Your task to perform on an android device: turn off notifications settings in the gmail app Image 0: 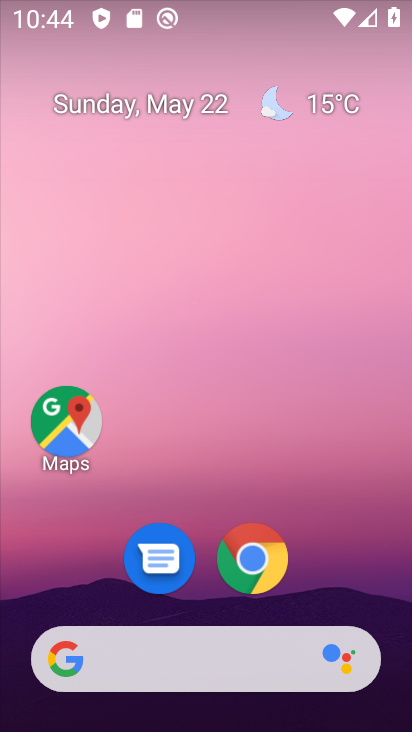
Step 0: drag from (368, 621) to (391, 7)
Your task to perform on an android device: turn off notifications settings in the gmail app Image 1: 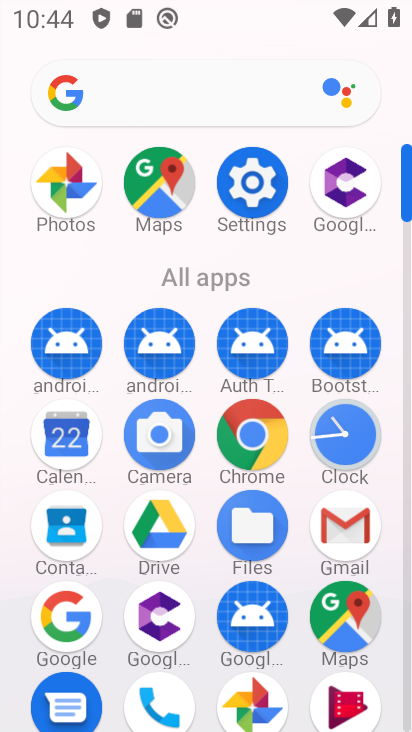
Step 1: click (338, 531)
Your task to perform on an android device: turn off notifications settings in the gmail app Image 2: 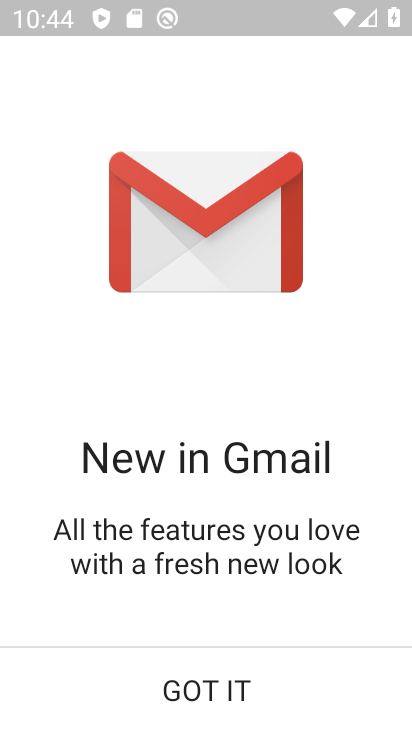
Step 2: click (185, 693)
Your task to perform on an android device: turn off notifications settings in the gmail app Image 3: 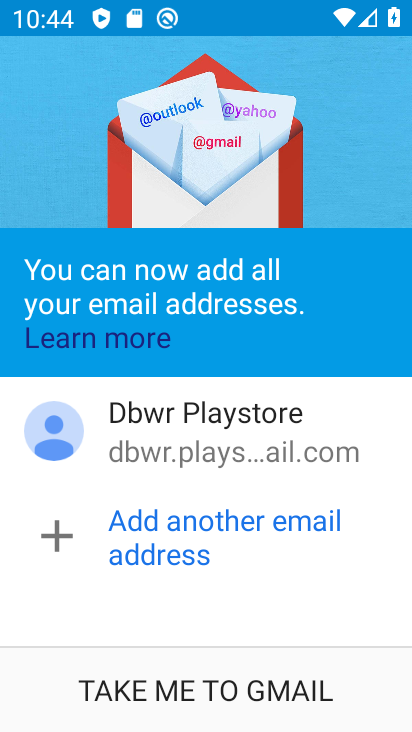
Step 3: click (185, 693)
Your task to perform on an android device: turn off notifications settings in the gmail app Image 4: 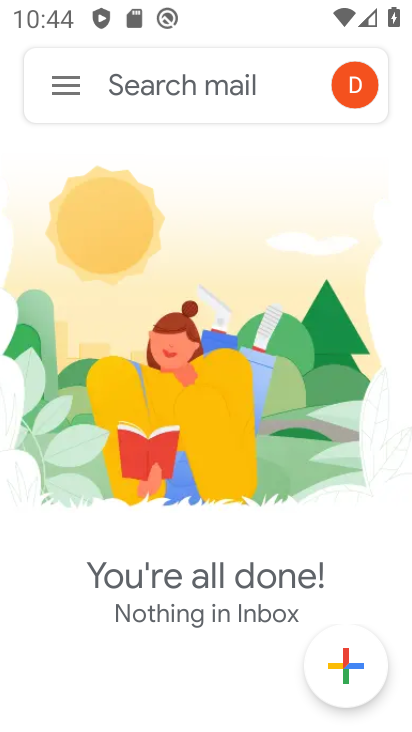
Step 4: click (61, 72)
Your task to perform on an android device: turn off notifications settings in the gmail app Image 5: 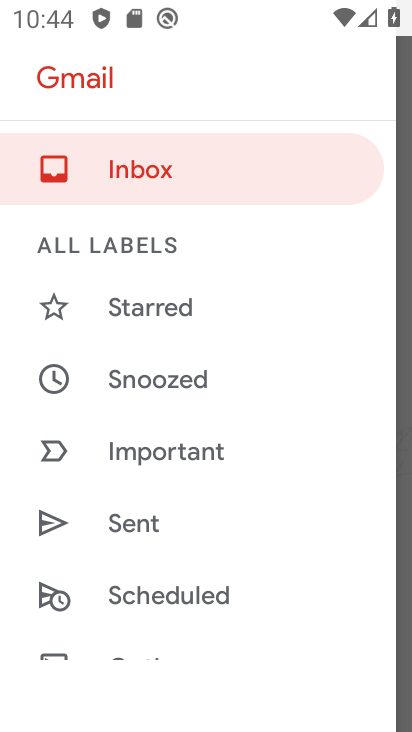
Step 5: drag from (196, 580) to (199, 161)
Your task to perform on an android device: turn off notifications settings in the gmail app Image 6: 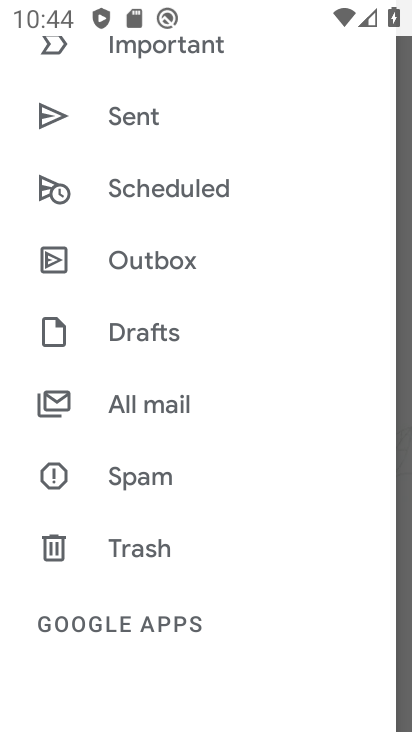
Step 6: drag from (187, 525) to (183, 156)
Your task to perform on an android device: turn off notifications settings in the gmail app Image 7: 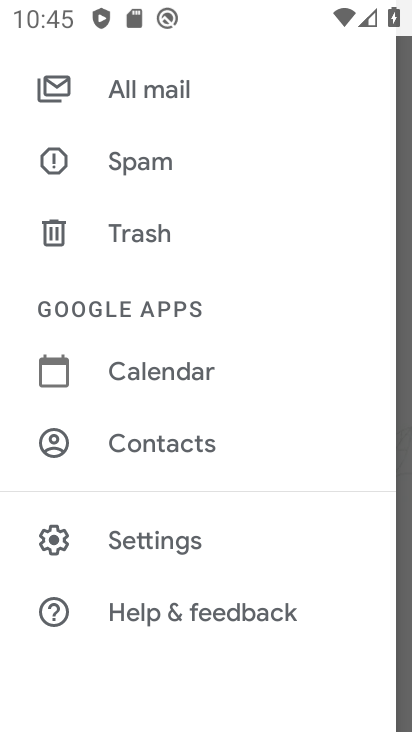
Step 7: click (144, 539)
Your task to perform on an android device: turn off notifications settings in the gmail app Image 8: 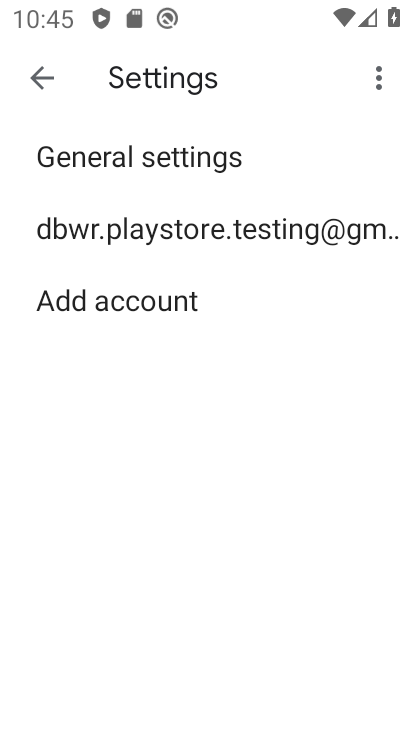
Step 8: click (134, 159)
Your task to perform on an android device: turn off notifications settings in the gmail app Image 9: 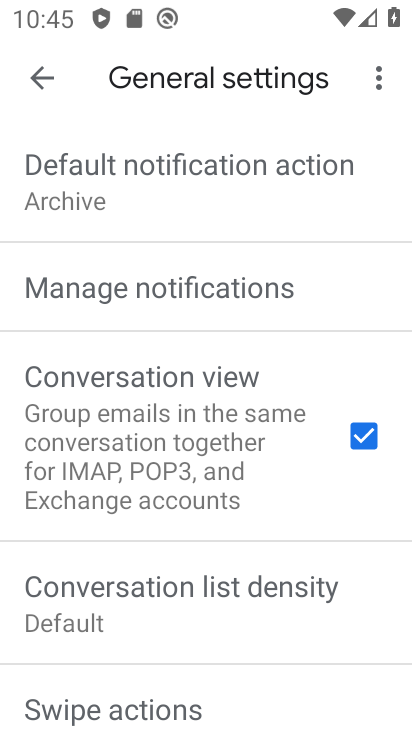
Step 9: click (148, 291)
Your task to perform on an android device: turn off notifications settings in the gmail app Image 10: 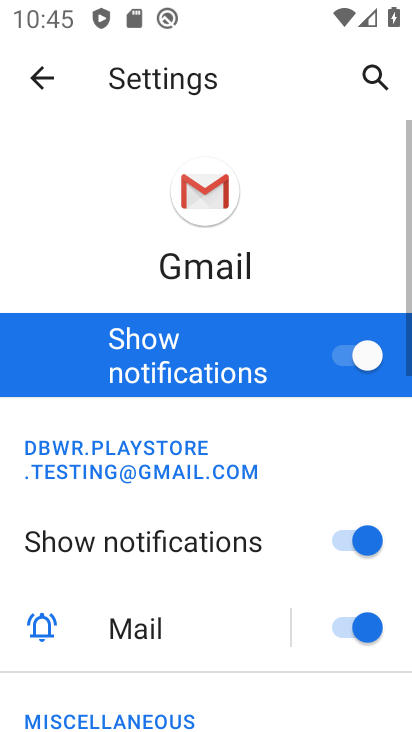
Step 10: click (368, 359)
Your task to perform on an android device: turn off notifications settings in the gmail app Image 11: 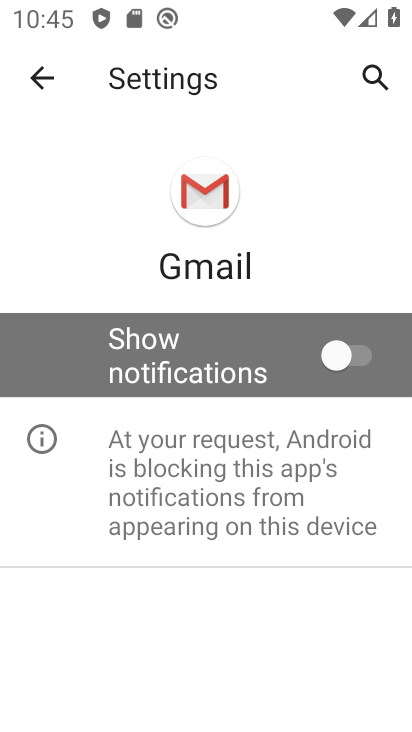
Step 11: task complete